Your task to perform on an android device: Open maps Image 0: 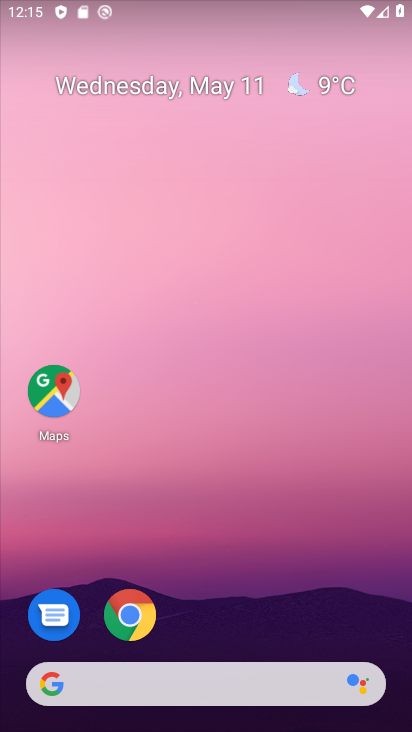
Step 0: click (73, 417)
Your task to perform on an android device: Open maps Image 1: 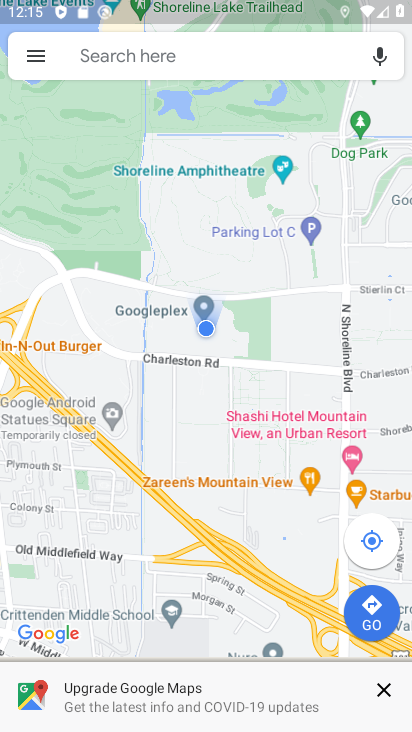
Step 1: task complete